Your task to perform on an android device: stop showing notifications on the lock screen Image 0: 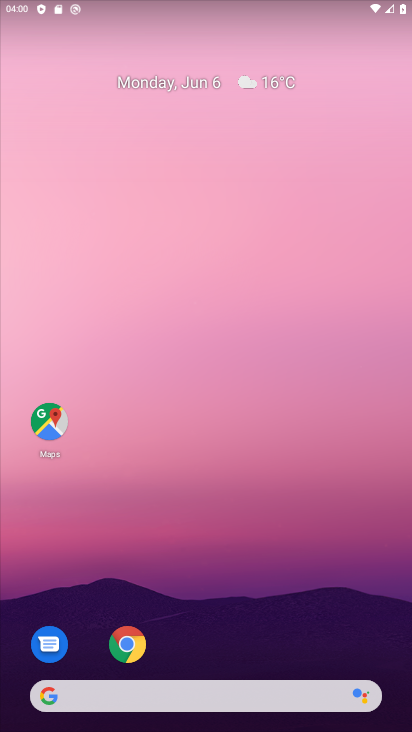
Step 0: drag from (400, 670) to (345, 52)
Your task to perform on an android device: stop showing notifications on the lock screen Image 1: 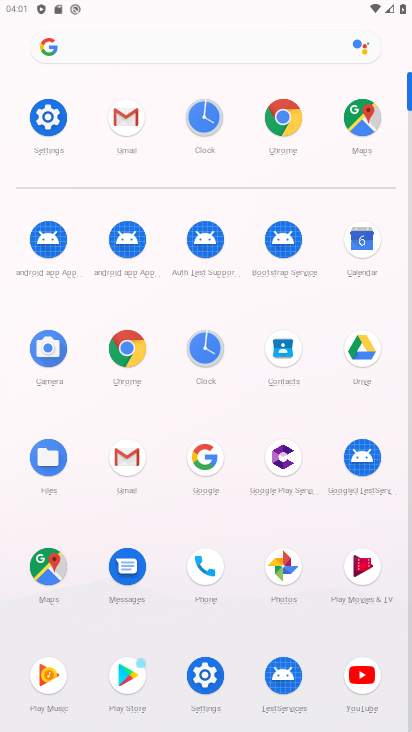
Step 1: click (52, 115)
Your task to perform on an android device: stop showing notifications on the lock screen Image 2: 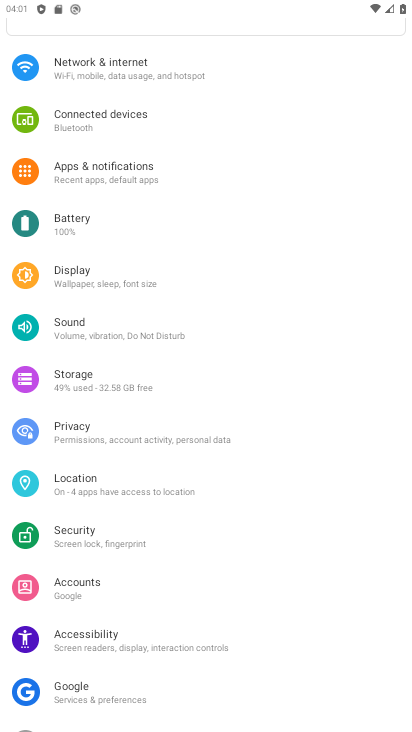
Step 2: click (143, 166)
Your task to perform on an android device: stop showing notifications on the lock screen Image 3: 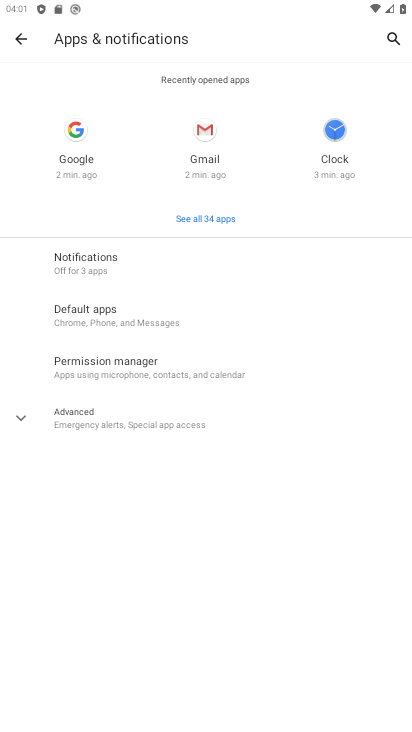
Step 3: click (85, 259)
Your task to perform on an android device: stop showing notifications on the lock screen Image 4: 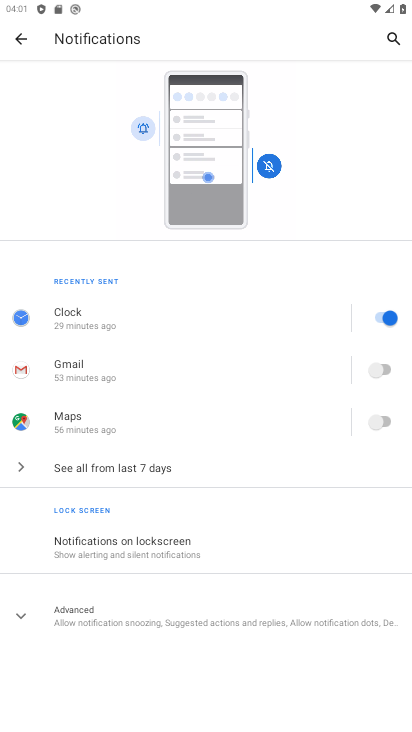
Step 4: click (106, 554)
Your task to perform on an android device: stop showing notifications on the lock screen Image 5: 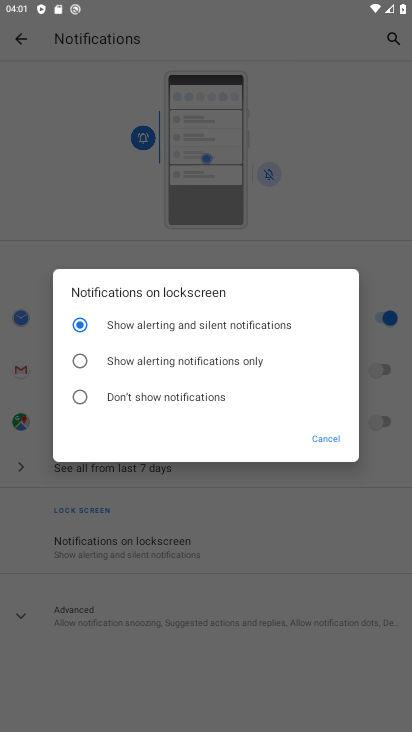
Step 5: click (77, 401)
Your task to perform on an android device: stop showing notifications on the lock screen Image 6: 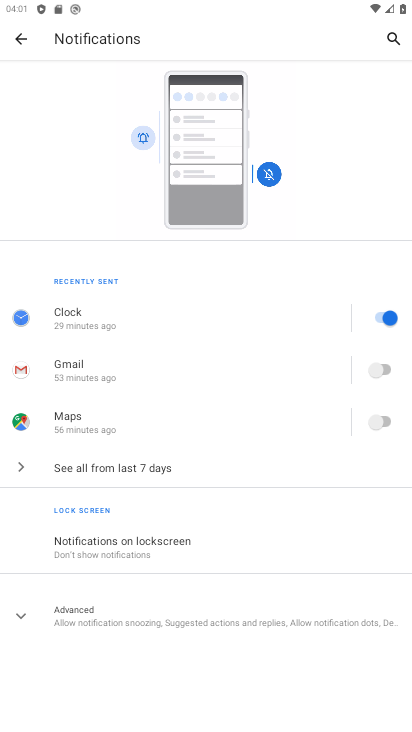
Step 6: task complete